Your task to perform on an android device: change the upload size in google photos Image 0: 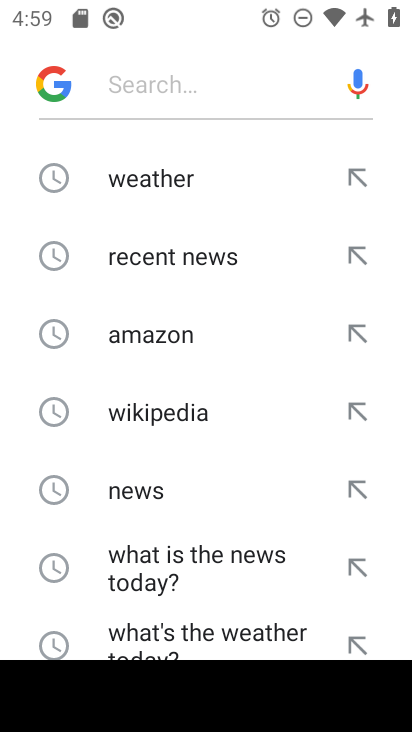
Step 0: press home button
Your task to perform on an android device: change the upload size in google photos Image 1: 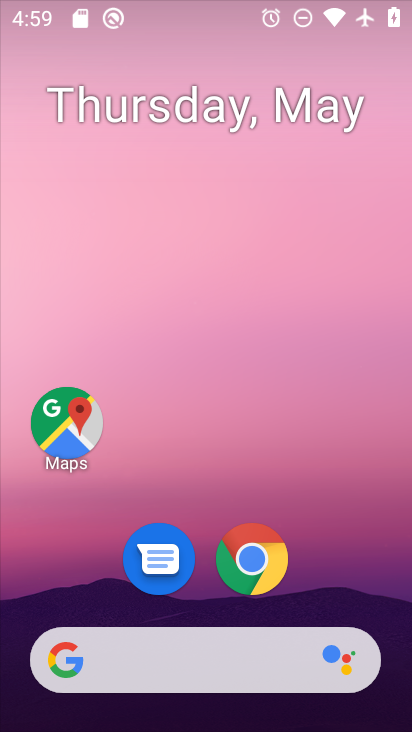
Step 1: drag from (340, 514) to (163, 39)
Your task to perform on an android device: change the upload size in google photos Image 2: 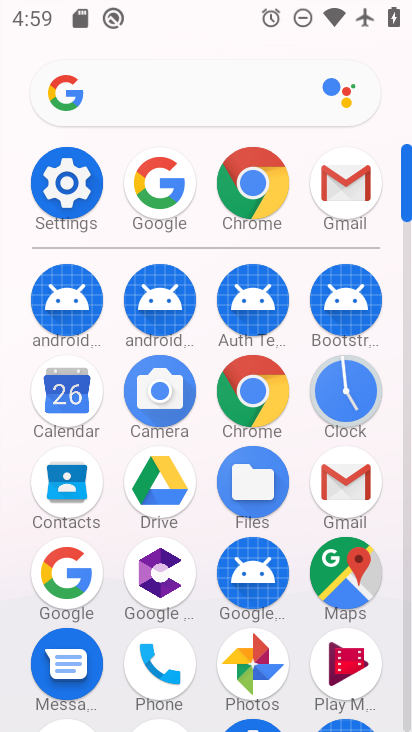
Step 2: click (279, 663)
Your task to perform on an android device: change the upload size in google photos Image 3: 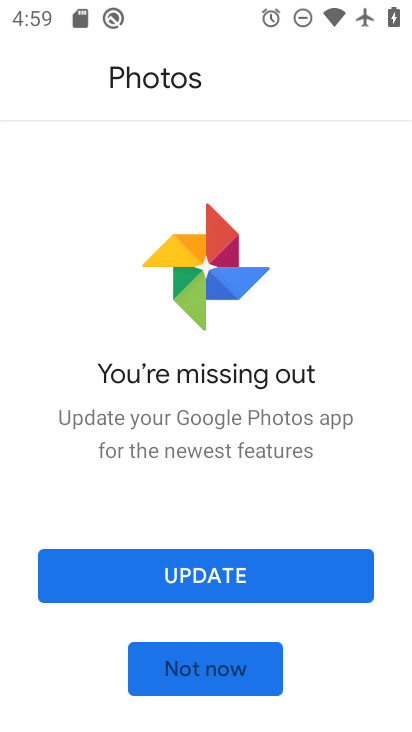
Step 3: click (272, 589)
Your task to perform on an android device: change the upload size in google photos Image 4: 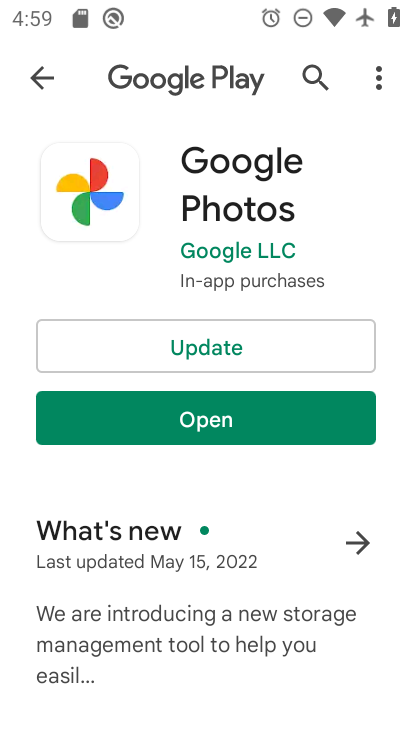
Step 4: click (261, 352)
Your task to perform on an android device: change the upload size in google photos Image 5: 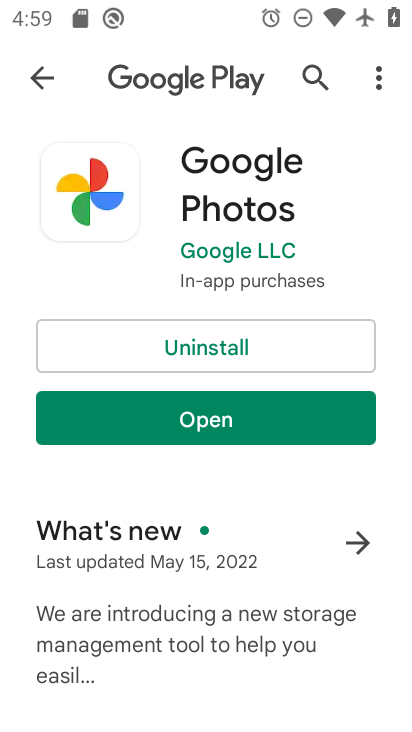
Step 5: click (270, 416)
Your task to perform on an android device: change the upload size in google photos Image 6: 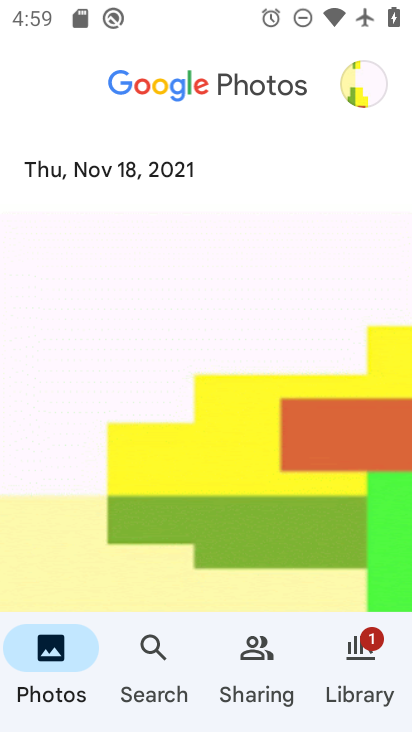
Step 6: click (359, 77)
Your task to perform on an android device: change the upload size in google photos Image 7: 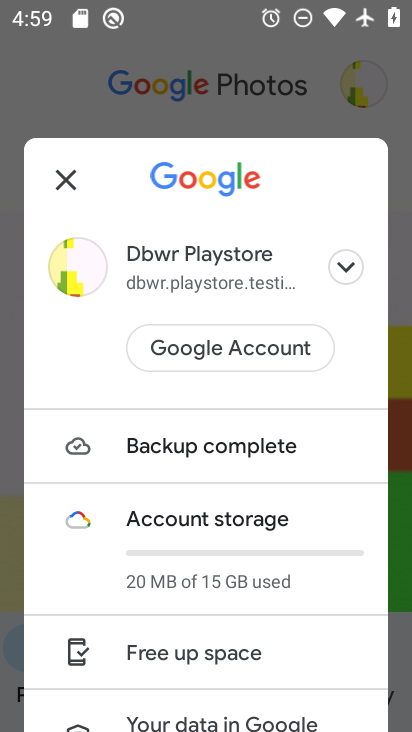
Step 7: drag from (218, 668) to (203, 285)
Your task to perform on an android device: change the upload size in google photos Image 8: 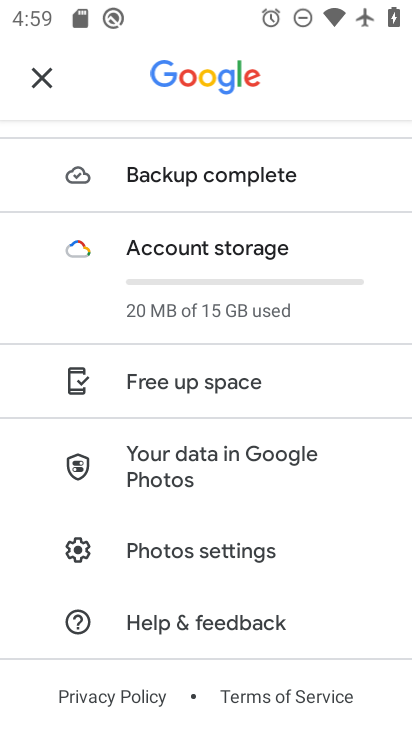
Step 8: click (225, 543)
Your task to perform on an android device: change the upload size in google photos Image 9: 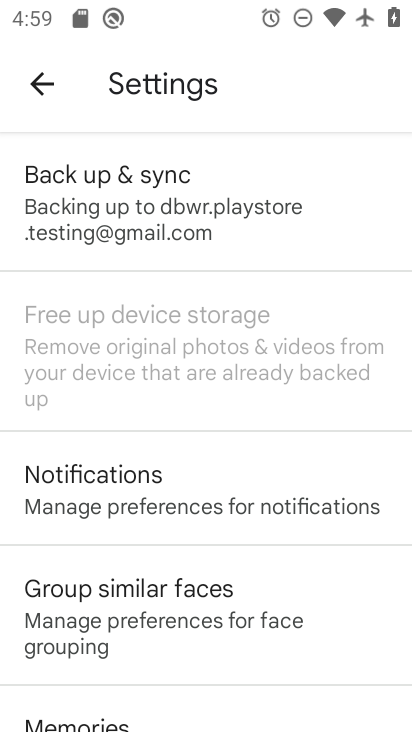
Step 9: click (166, 215)
Your task to perform on an android device: change the upload size in google photos Image 10: 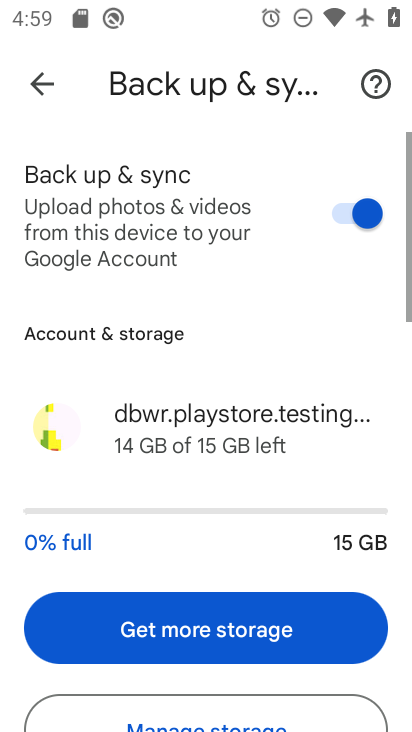
Step 10: drag from (183, 480) to (148, 97)
Your task to perform on an android device: change the upload size in google photos Image 11: 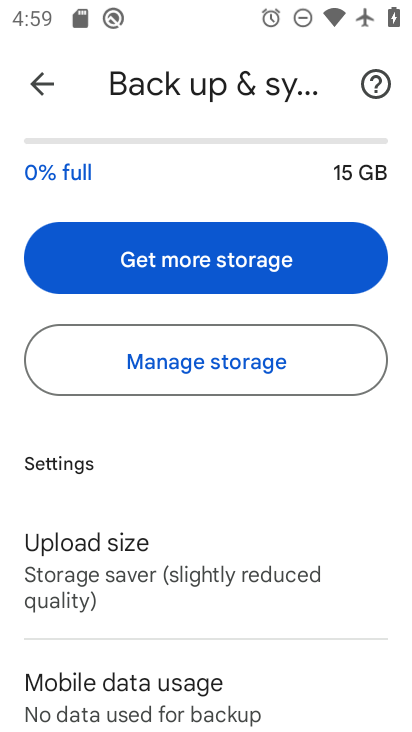
Step 11: click (160, 563)
Your task to perform on an android device: change the upload size in google photos Image 12: 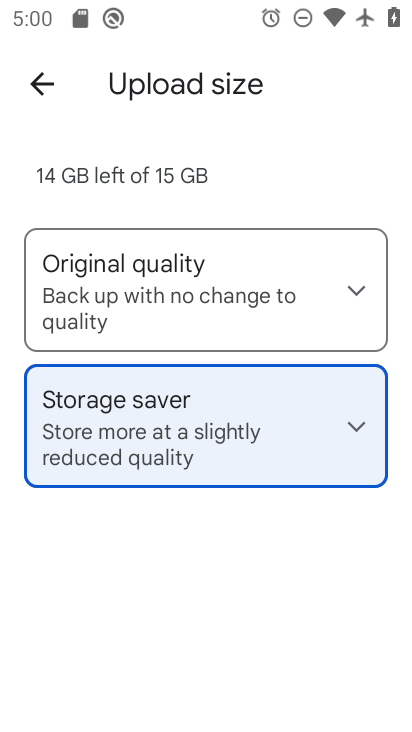
Step 12: click (157, 309)
Your task to perform on an android device: change the upload size in google photos Image 13: 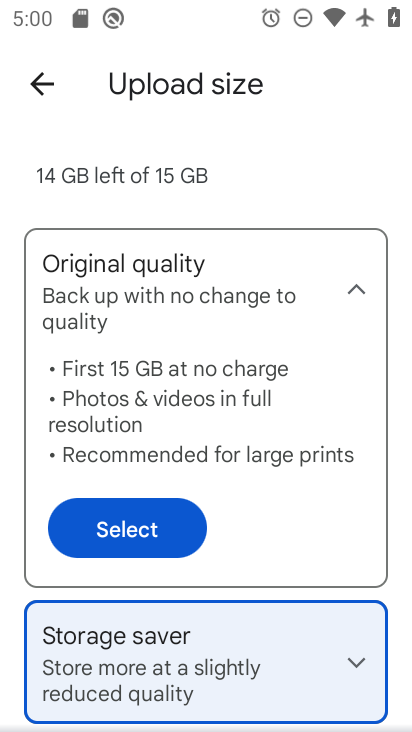
Step 13: click (116, 510)
Your task to perform on an android device: change the upload size in google photos Image 14: 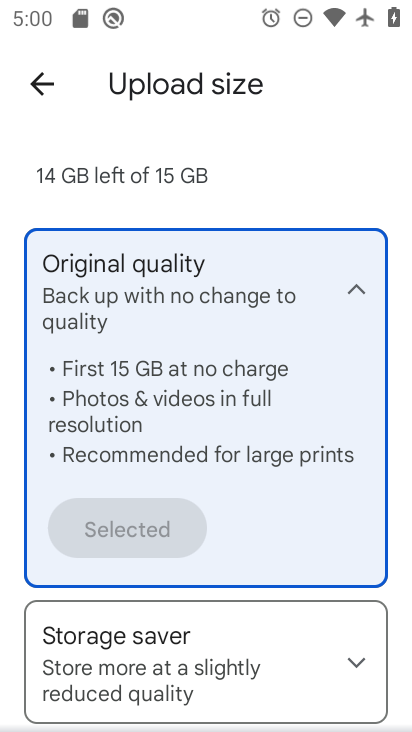
Step 14: task complete